Your task to perform on an android device: Search for Italian restaurants on Maps Image 0: 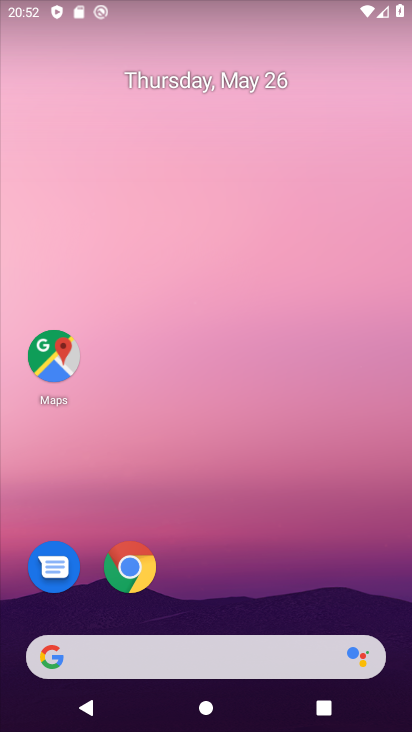
Step 0: click (43, 364)
Your task to perform on an android device: Search for Italian restaurants on Maps Image 1: 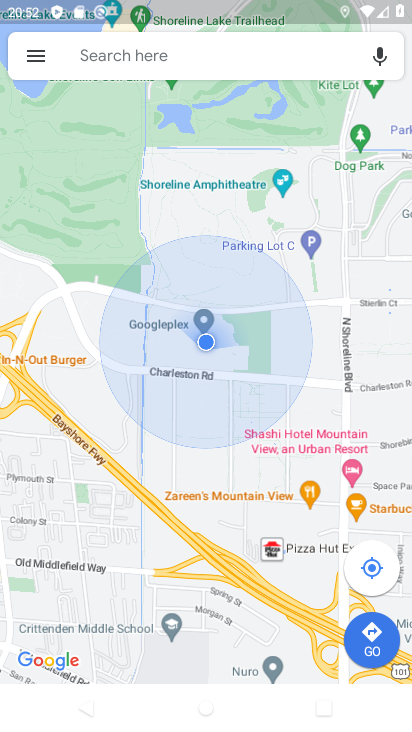
Step 1: click (220, 58)
Your task to perform on an android device: Search for Italian restaurants on Maps Image 2: 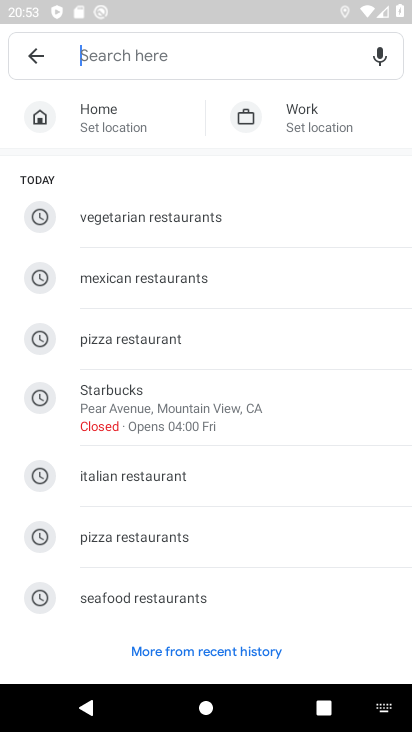
Step 2: click (162, 469)
Your task to perform on an android device: Search for Italian restaurants on Maps Image 3: 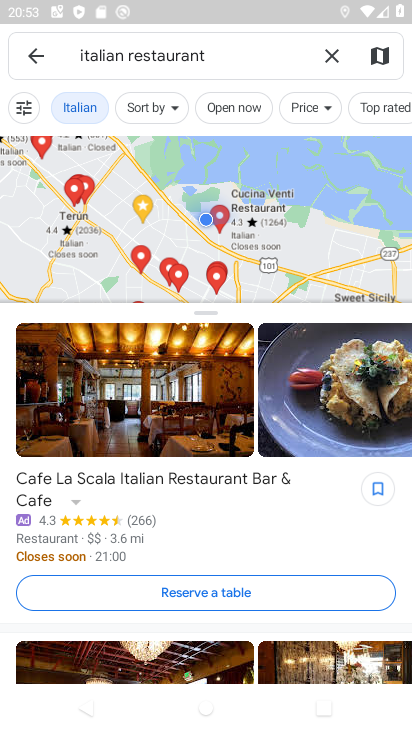
Step 3: task complete